Your task to perform on an android device: Open sound settings Image 0: 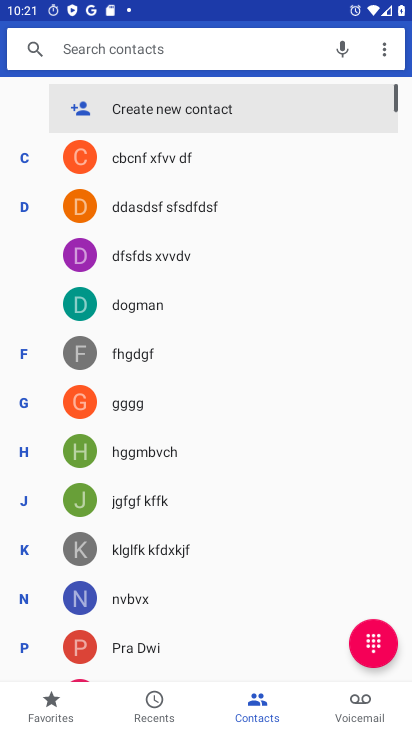
Step 0: press home button
Your task to perform on an android device: Open sound settings Image 1: 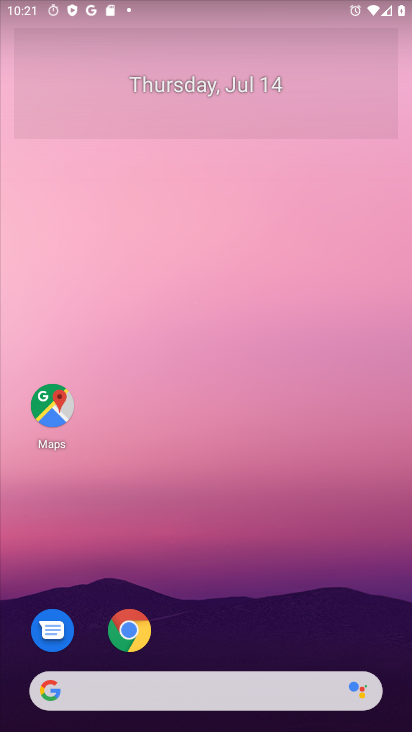
Step 1: drag from (29, 715) to (134, 176)
Your task to perform on an android device: Open sound settings Image 2: 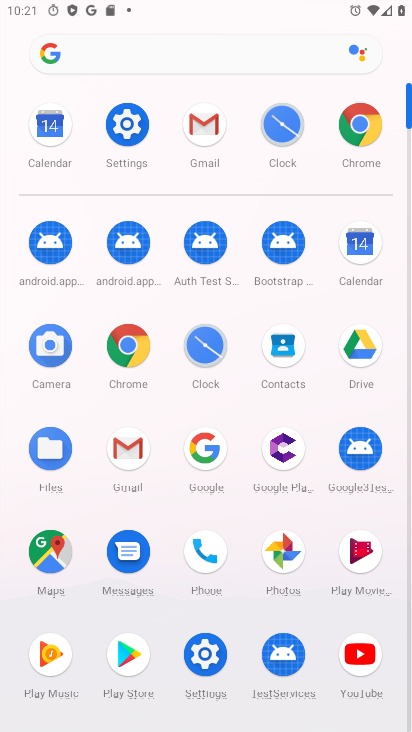
Step 2: click (206, 662)
Your task to perform on an android device: Open sound settings Image 3: 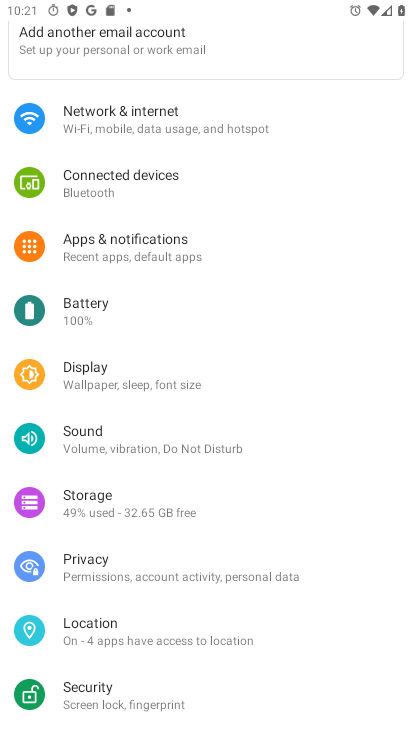
Step 3: click (109, 434)
Your task to perform on an android device: Open sound settings Image 4: 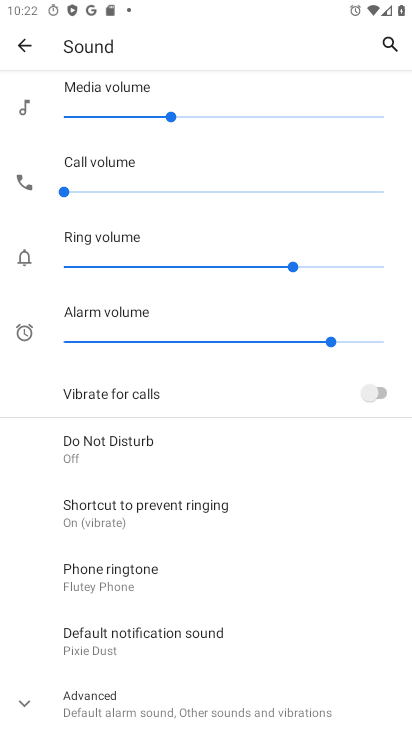
Step 4: task complete